Your task to perform on an android device: Open settings on Google Maps Image 0: 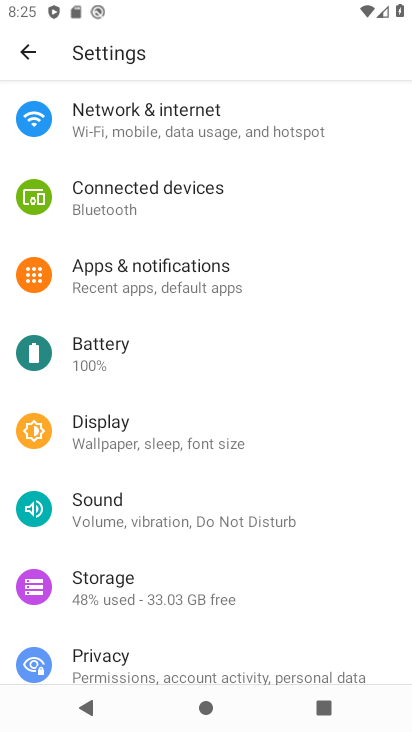
Step 0: press home button
Your task to perform on an android device: Open settings on Google Maps Image 1: 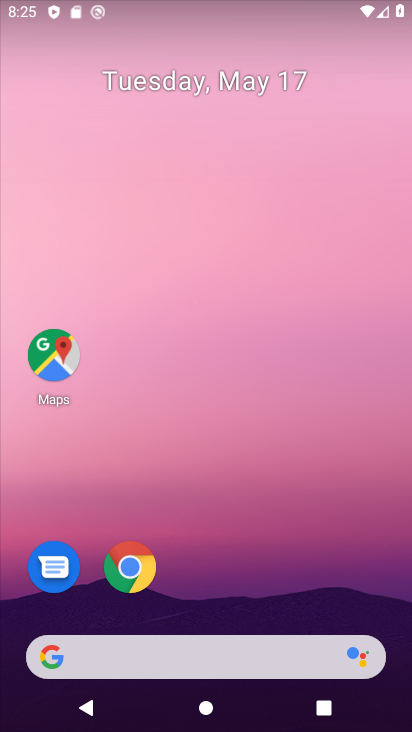
Step 1: drag from (175, 569) to (198, 308)
Your task to perform on an android device: Open settings on Google Maps Image 2: 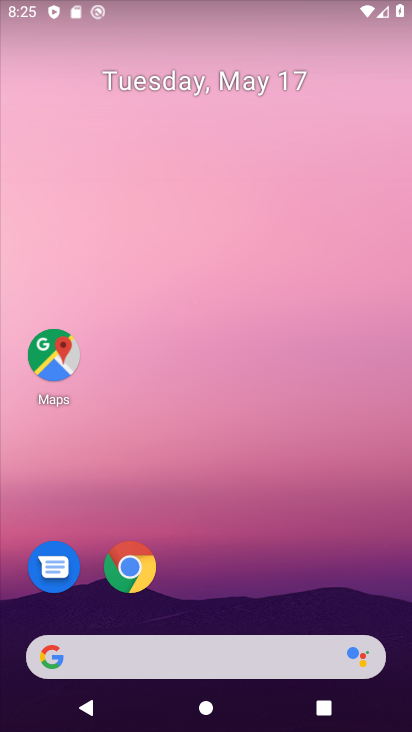
Step 2: drag from (167, 634) to (238, 128)
Your task to perform on an android device: Open settings on Google Maps Image 3: 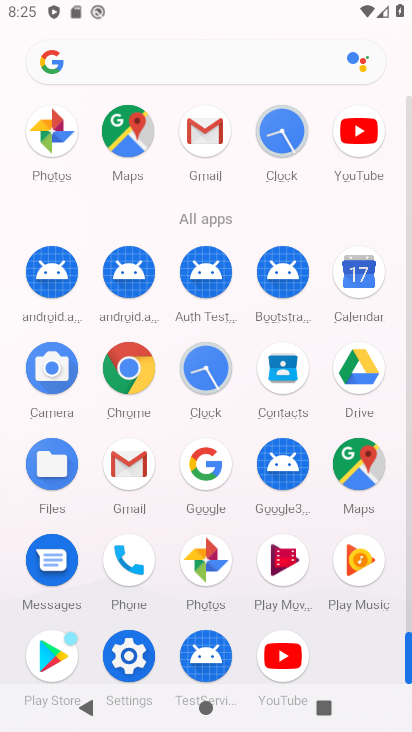
Step 3: click (133, 133)
Your task to perform on an android device: Open settings on Google Maps Image 4: 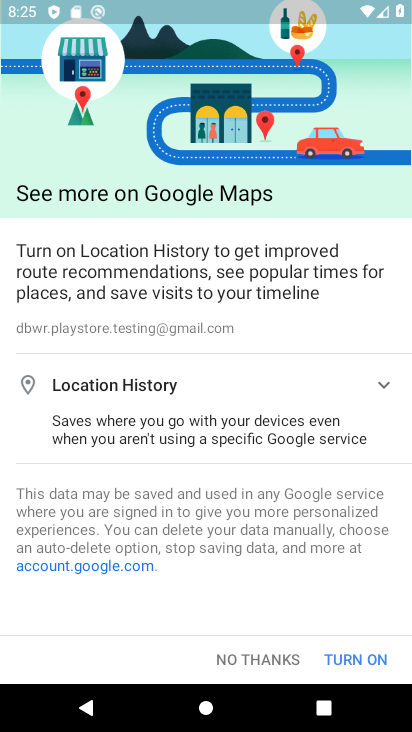
Step 4: click (337, 660)
Your task to perform on an android device: Open settings on Google Maps Image 5: 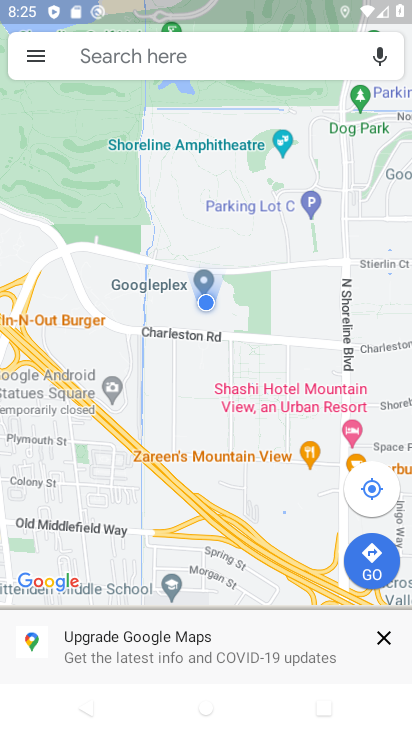
Step 5: click (36, 57)
Your task to perform on an android device: Open settings on Google Maps Image 6: 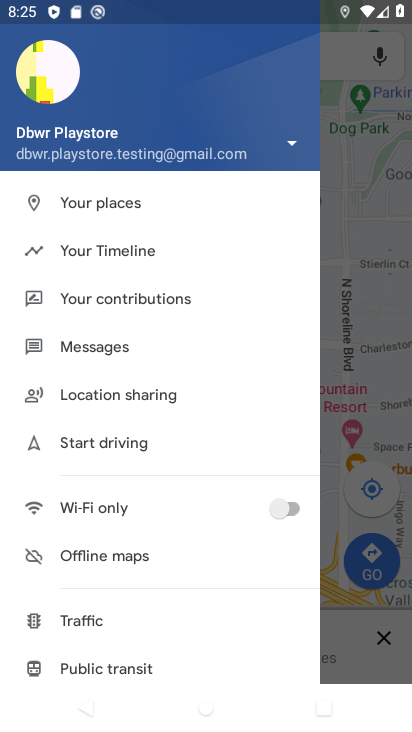
Step 6: drag from (103, 649) to (131, 342)
Your task to perform on an android device: Open settings on Google Maps Image 7: 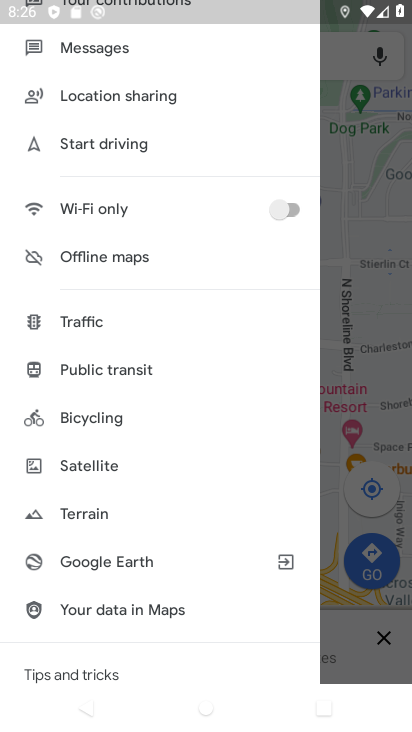
Step 7: drag from (125, 643) to (102, 329)
Your task to perform on an android device: Open settings on Google Maps Image 8: 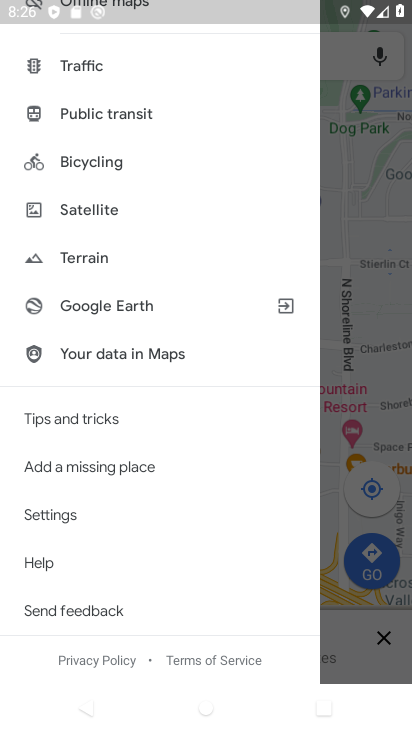
Step 8: click (38, 518)
Your task to perform on an android device: Open settings on Google Maps Image 9: 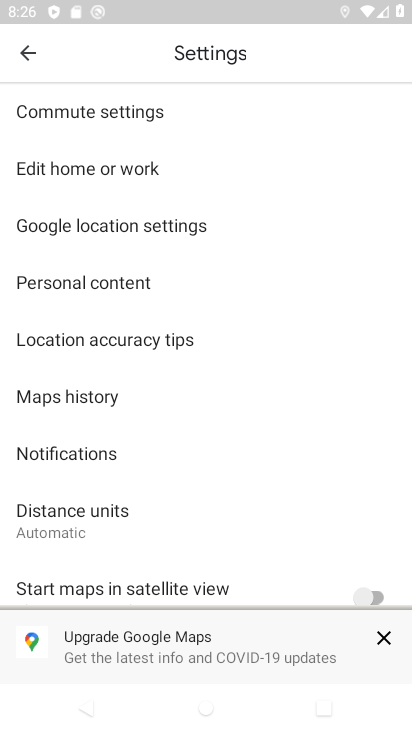
Step 9: task complete